Your task to perform on an android device: turn pop-ups on in chrome Image 0: 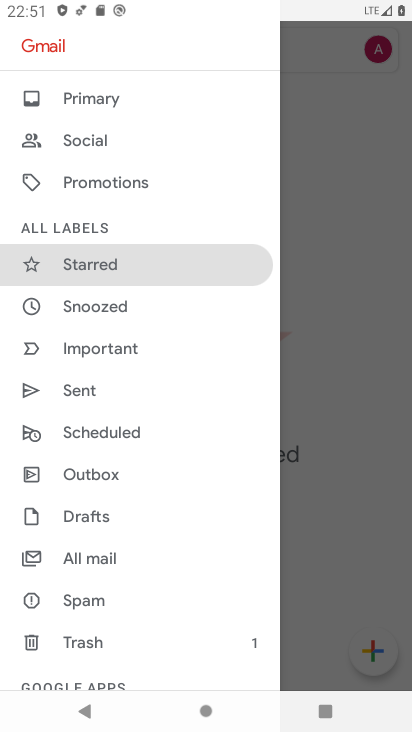
Step 0: press home button
Your task to perform on an android device: turn pop-ups on in chrome Image 1: 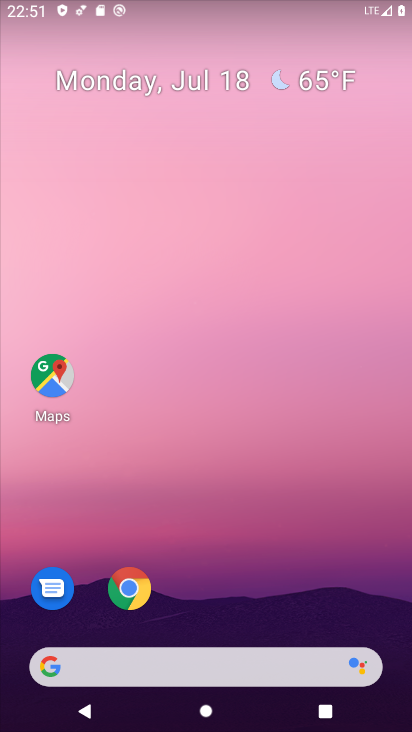
Step 1: click (135, 594)
Your task to perform on an android device: turn pop-ups on in chrome Image 2: 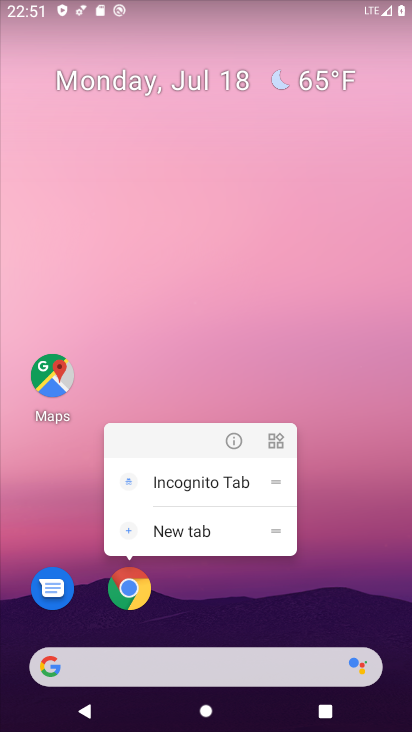
Step 2: click (135, 594)
Your task to perform on an android device: turn pop-ups on in chrome Image 3: 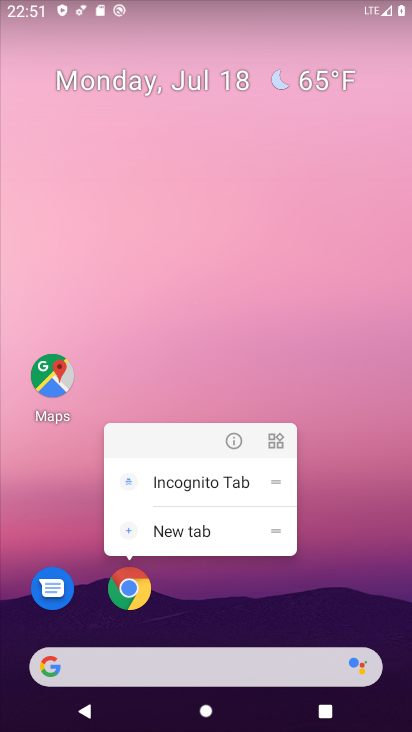
Step 3: click (135, 594)
Your task to perform on an android device: turn pop-ups on in chrome Image 4: 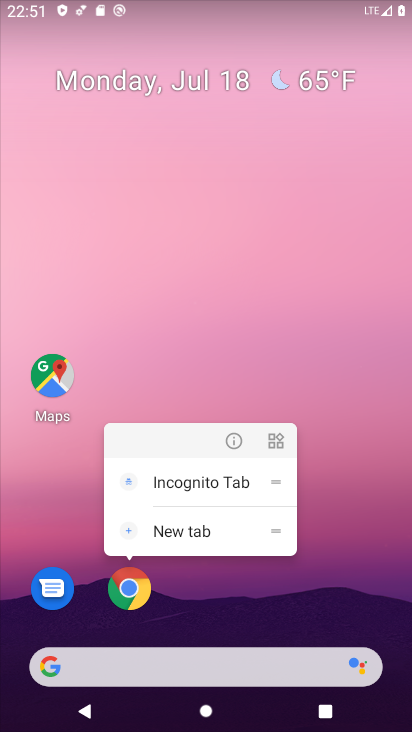
Step 4: click (135, 594)
Your task to perform on an android device: turn pop-ups on in chrome Image 5: 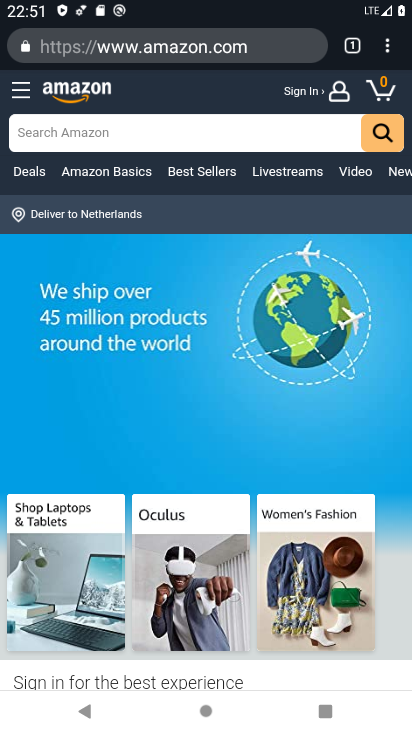
Step 5: drag from (388, 40) to (232, 561)
Your task to perform on an android device: turn pop-ups on in chrome Image 6: 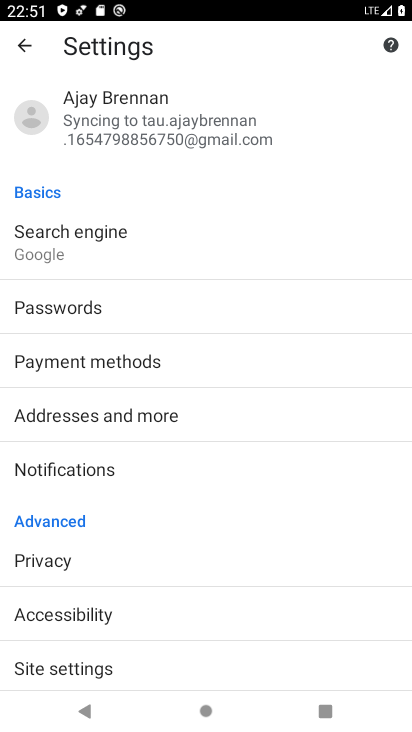
Step 6: drag from (196, 527) to (204, 185)
Your task to perform on an android device: turn pop-ups on in chrome Image 7: 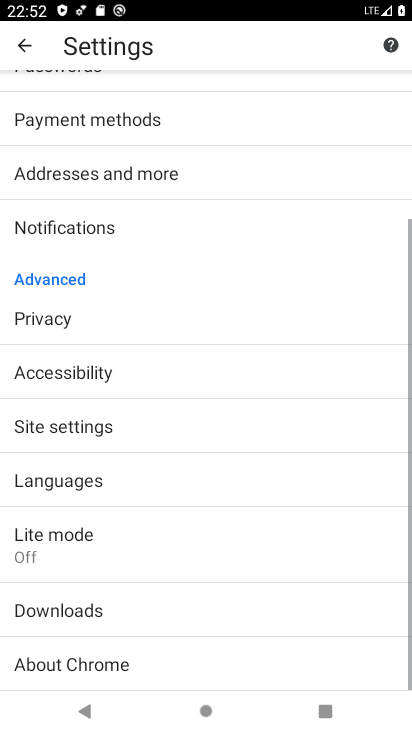
Step 7: click (122, 426)
Your task to perform on an android device: turn pop-ups on in chrome Image 8: 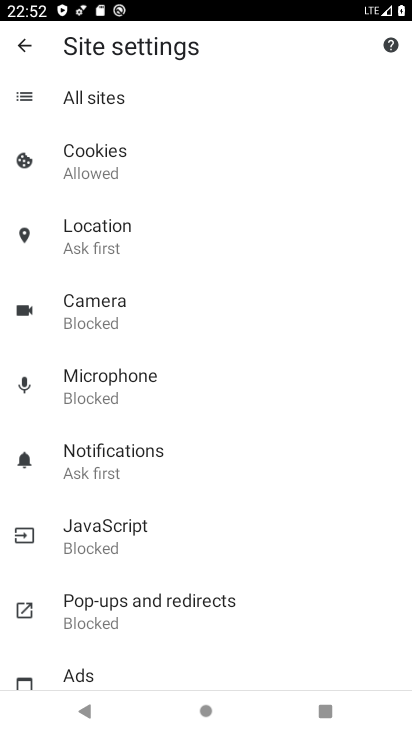
Step 8: click (134, 610)
Your task to perform on an android device: turn pop-ups on in chrome Image 9: 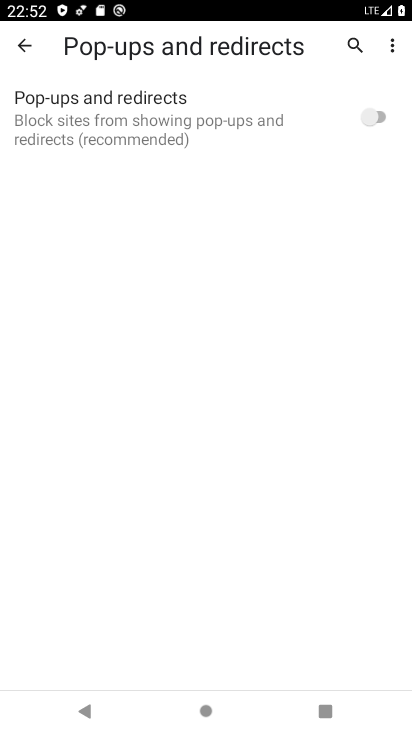
Step 9: click (364, 117)
Your task to perform on an android device: turn pop-ups on in chrome Image 10: 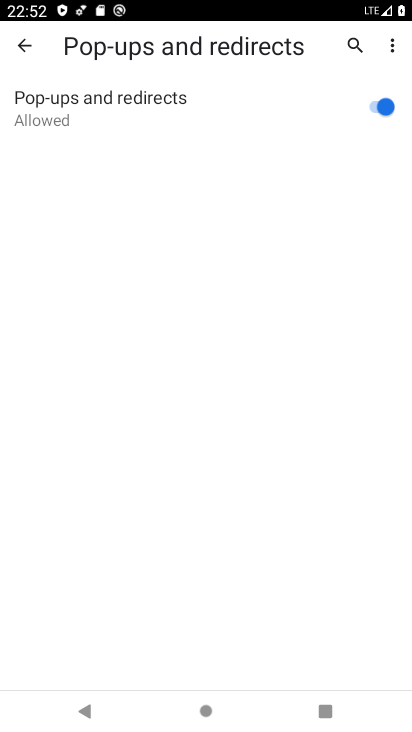
Step 10: task complete